Your task to perform on an android device: What's the weather? Image 0: 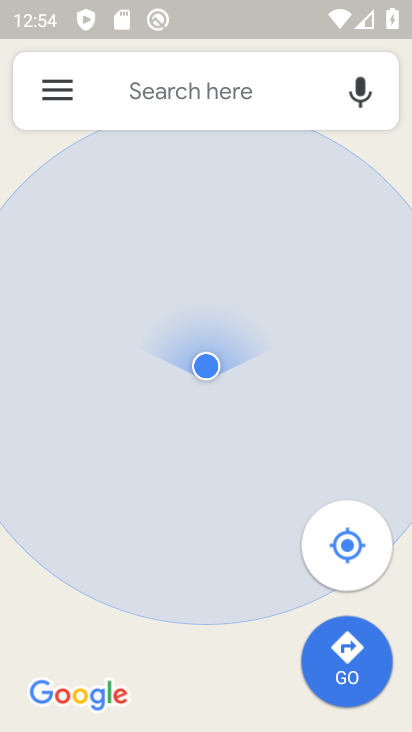
Step 0: press home button
Your task to perform on an android device: What's the weather? Image 1: 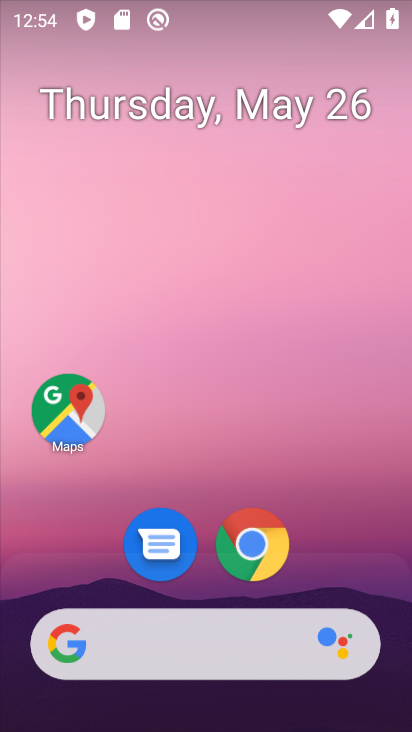
Step 1: click (170, 639)
Your task to perform on an android device: What's the weather? Image 2: 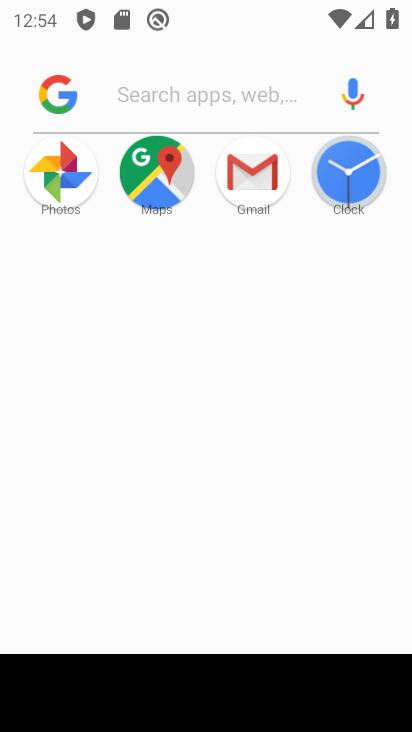
Step 2: click (49, 90)
Your task to perform on an android device: What's the weather? Image 3: 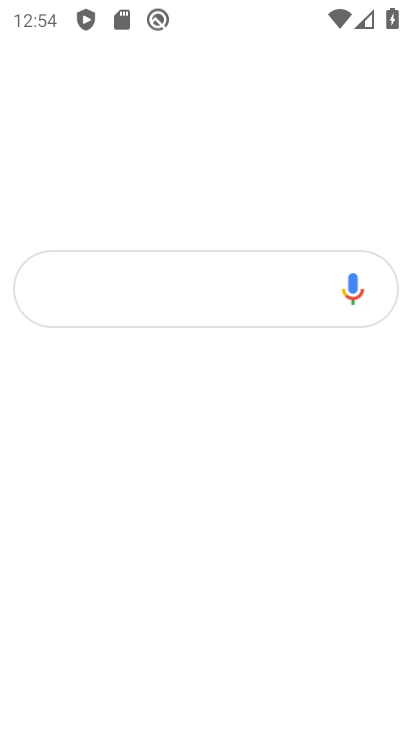
Step 3: click (249, 88)
Your task to perform on an android device: What's the weather? Image 4: 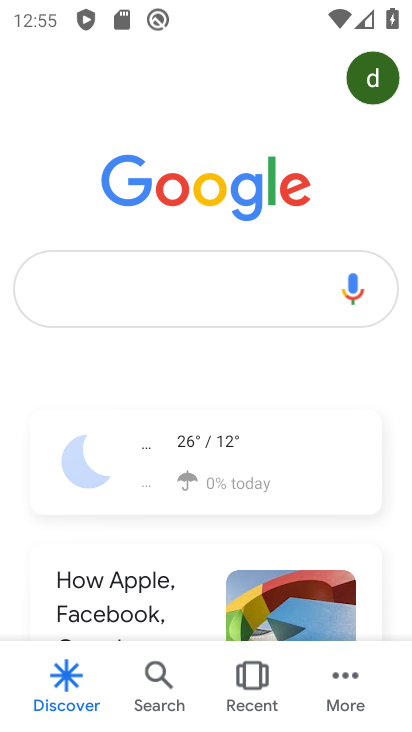
Step 4: click (216, 476)
Your task to perform on an android device: What's the weather? Image 5: 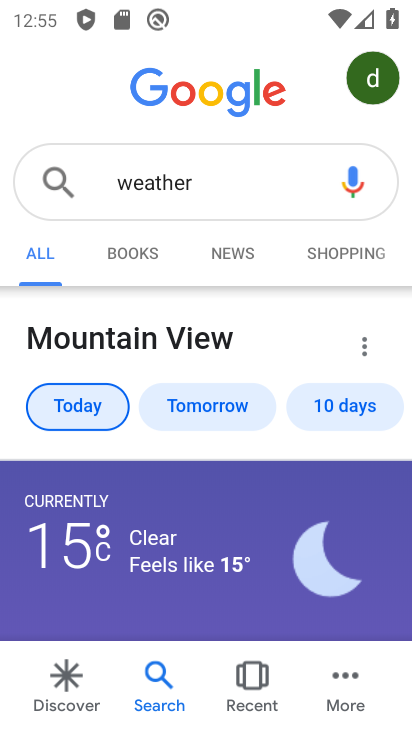
Step 5: task complete